Your task to perform on an android device: Open calendar and show me the fourth week of next month Image 0: 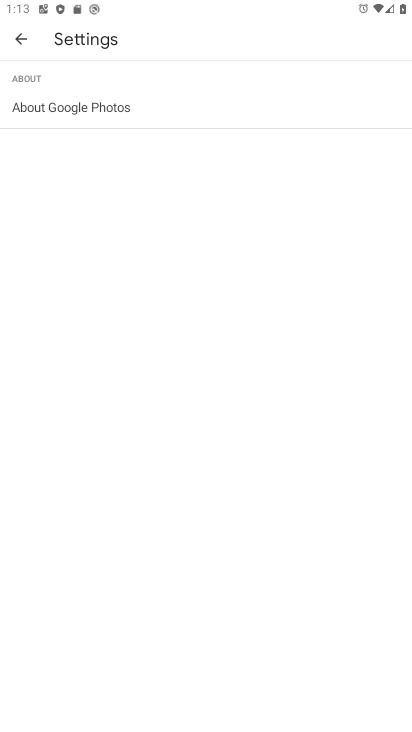
Step 0: drag from (261, 559) to (142, 139)
Your task to perform on an android device: Open calendar and show me the fourth week of next month Image 1: 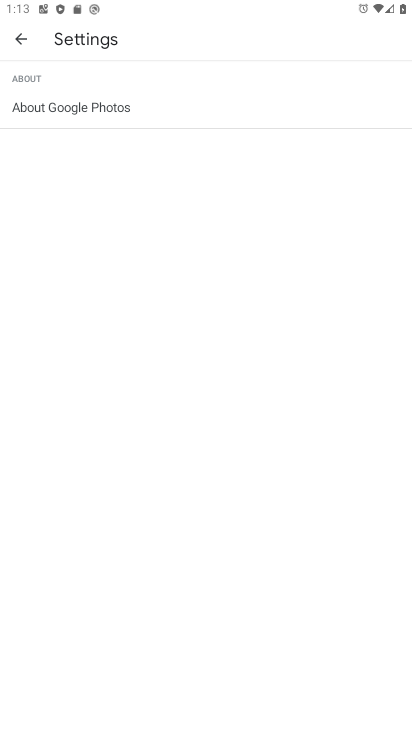
Step 1: click (23, 37)
Your task to perform on an android device: Open calendar and show me the fourth week of next month Image 2: 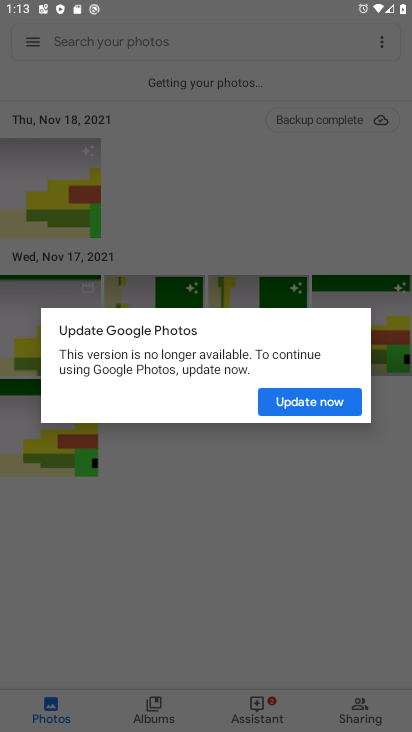
Step 2: click (301, 403)
Your task to perform on an android device: Open calendar and show me the fourth week of next month Image 3: 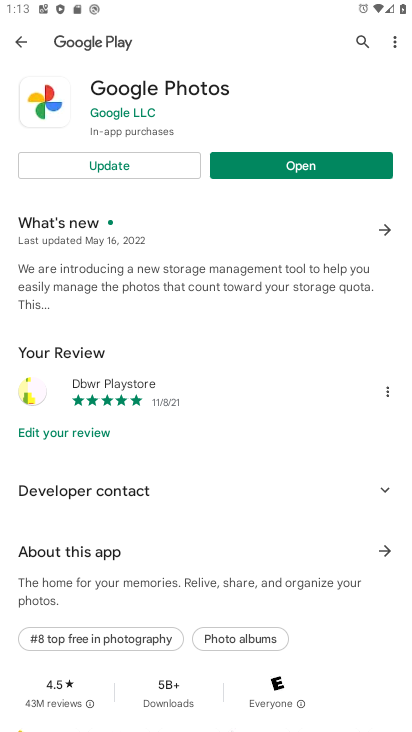
Step 3: press back button
Your task to perform on an android device: Open calendar and show me the fourth week of next month Image 4: 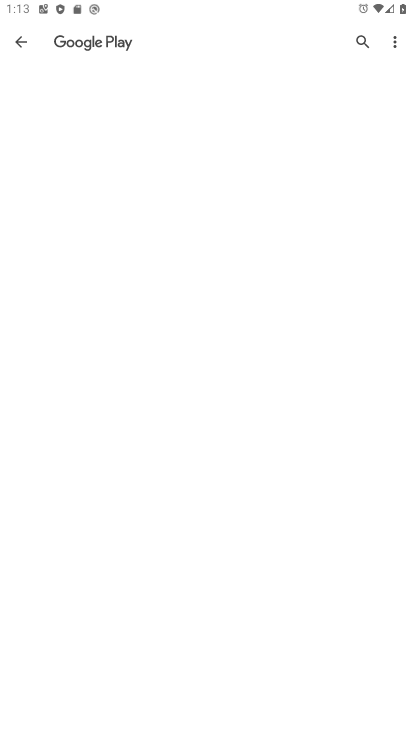
Step 4: press back button
Your task to perform on an android device: Open calendar and show me the fourth week of next month Image 5: 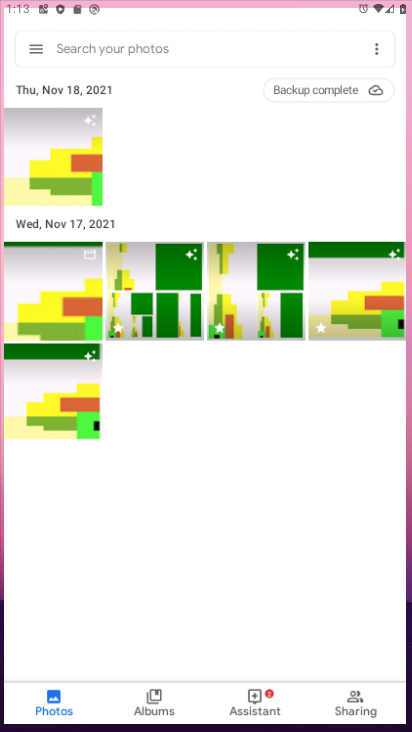
Step 5: press back button
Your task to perform on an android device: Open calendar and show me the fourth week of next month Image 6: 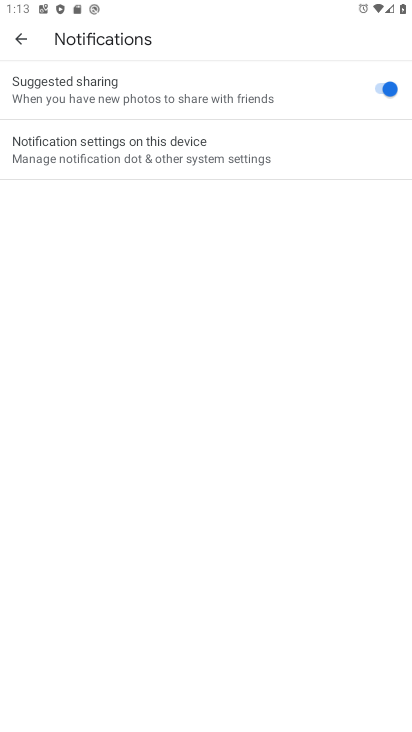
Step 6: click (23, 37)
Your task to perform on an android device: Open calendar and show me the fourth week of next month Image 7: 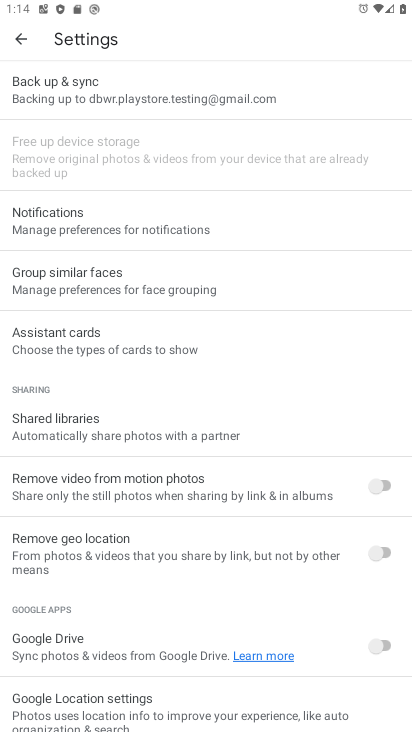
Step 7: press home button
Your task to perform on an android device: Open calendar and show me the fourth week of next month Image 8: 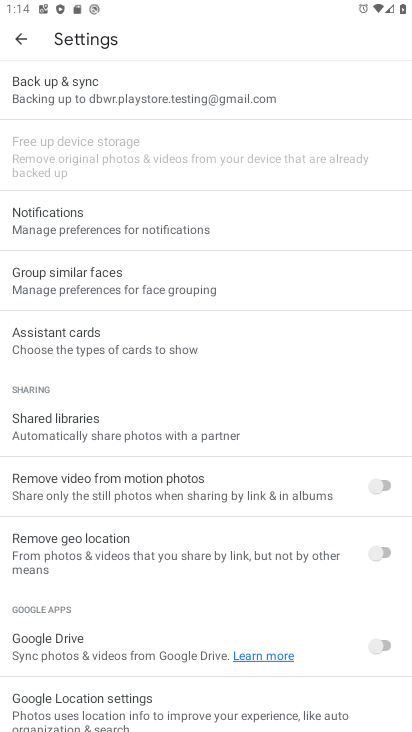
Step 8: press home button
Your task to perform on an android device: Open calendar and show me the fourth week of next month Image 9: 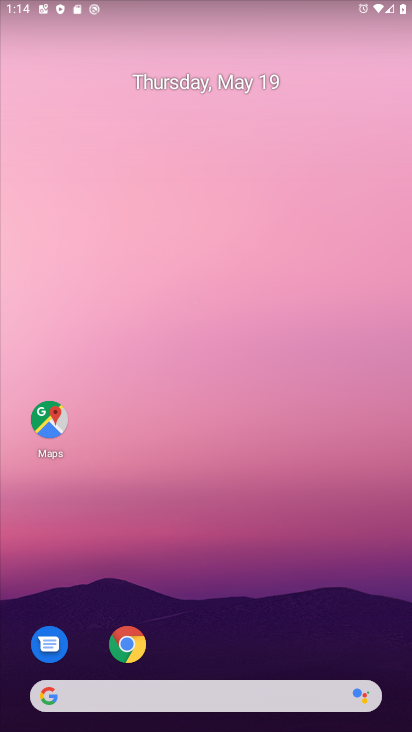
Step 9: drag from (314, 621) to (166, 134)
Your task to perform on an android device: Open calendar and show me the fourth week of next month Image 10: 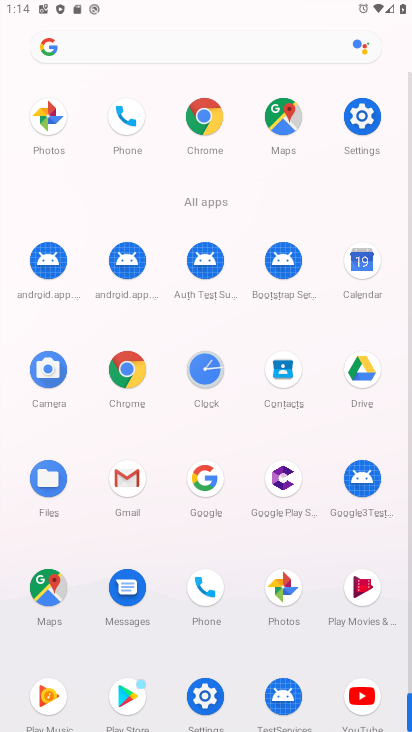
Step 10: click (354, 261)
Your task to perform on an android device: Open calendar and show me the fourth week of next month Image 11: 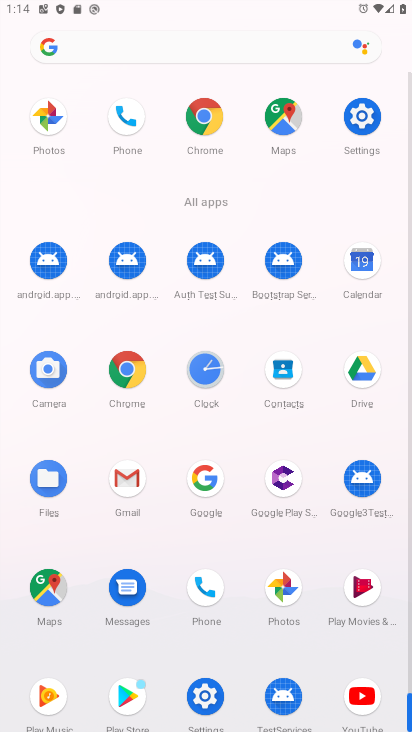
Step 11: click (356, 262)
Your task to perform on an android device: Open calendar and show me the fourth week of next month Image 12: 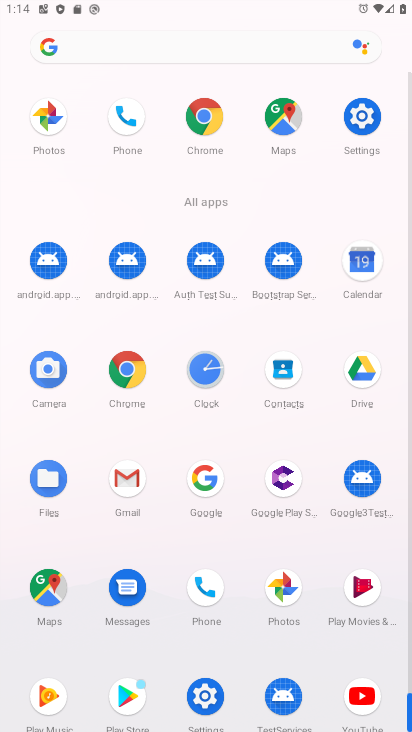
Step 12: click (354, 265)
Your task to perform on an android device: Open calendar and show me the fourth week of next month Image 13: 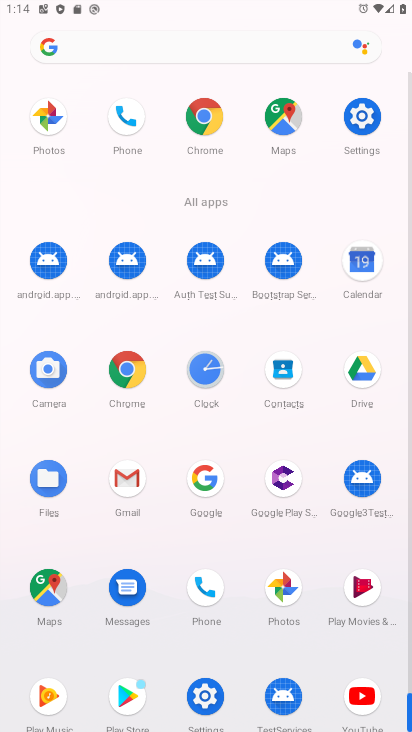
Step 13: click (353, 266)
Your task to perform on an android device: Open calendar and show me the fourth week of next month Image 14: 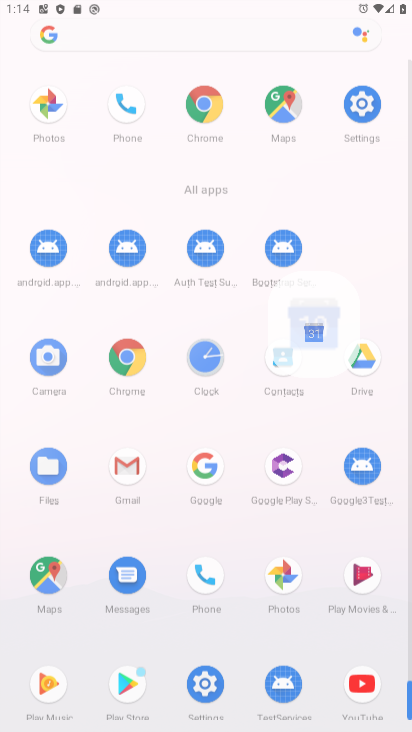
Step 14: click (347, 261)
Your task to perform on an android device: Open calendar and show me the fourth week of next month Image 15: 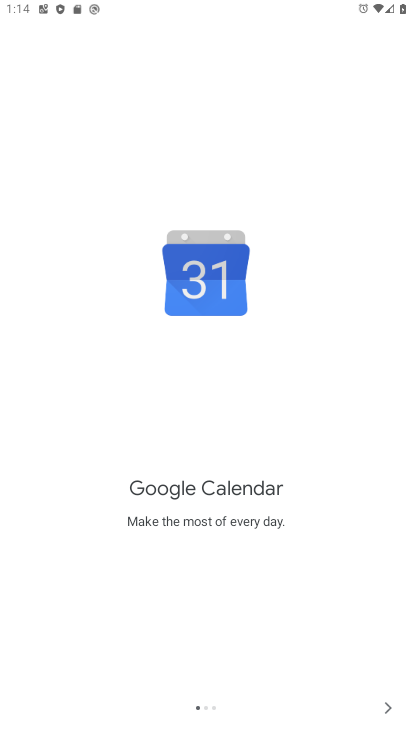
Step 15: click (390, 713)
Your task to perform on an android device: Open calendar and show me the fourth week of next month Image 16: 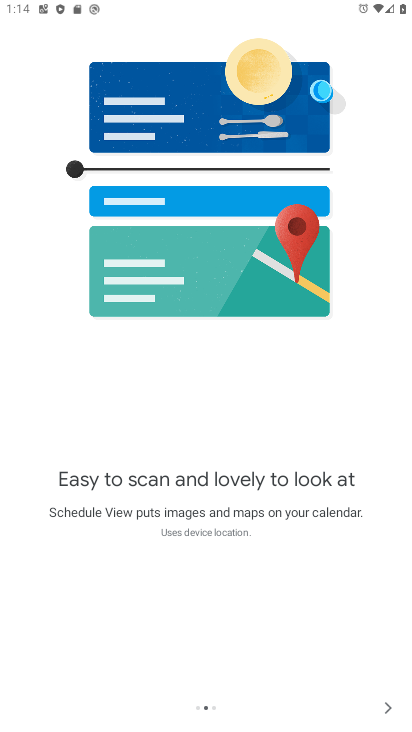
Step 16: click (389, 713)
Your task to perform on an android device: Open calendar and show me the fourth week of next month Image 17: 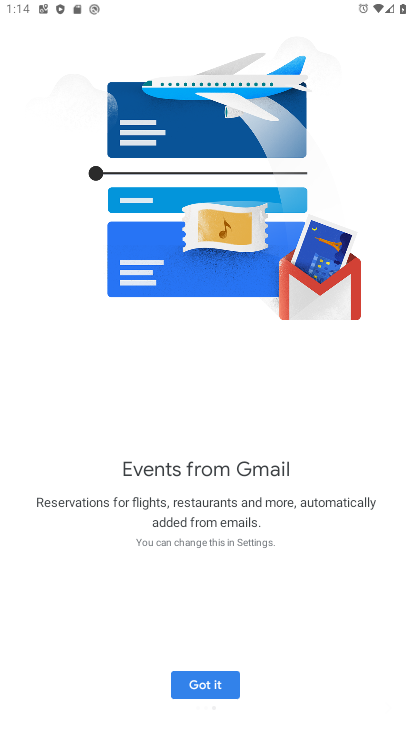
Step 17: click (388, 714)
Your task to perform on an android device: Open calendar and show me the fourth week of next month Image 18: 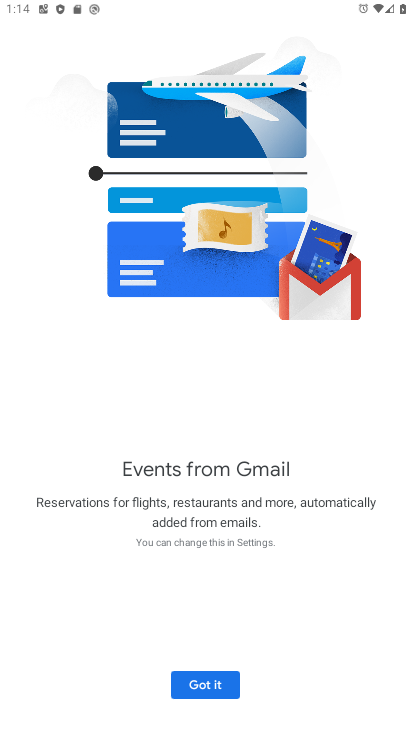
Step 18: click (389, 711)
Your task to perform on an android device: Open calendar and show me the fourth week of next month Image 19: 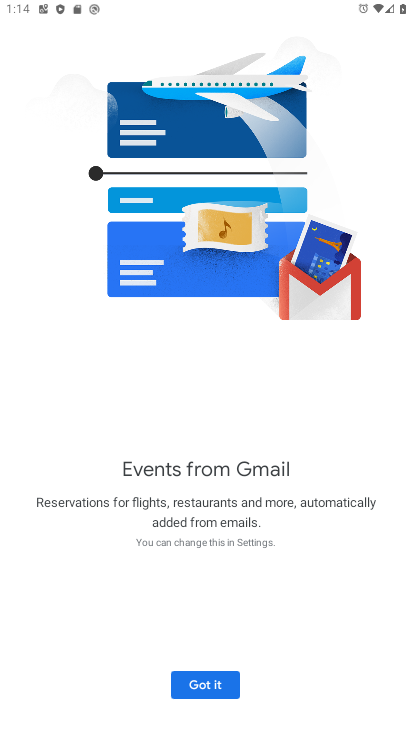
Step 19: click (199, 683)
Your task to perform on an android device: Open calendar and show me the fourth week of next month Image 20: 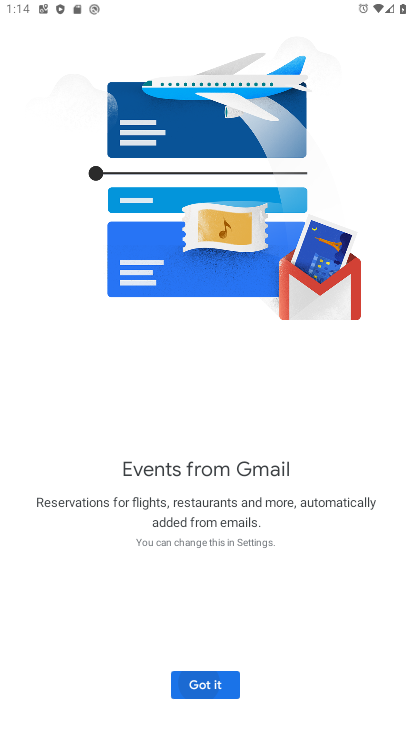
Step 20: click (201, 685)
Your task to perform on an android device: Open calendar and show me the fourth week of next month Image 21: 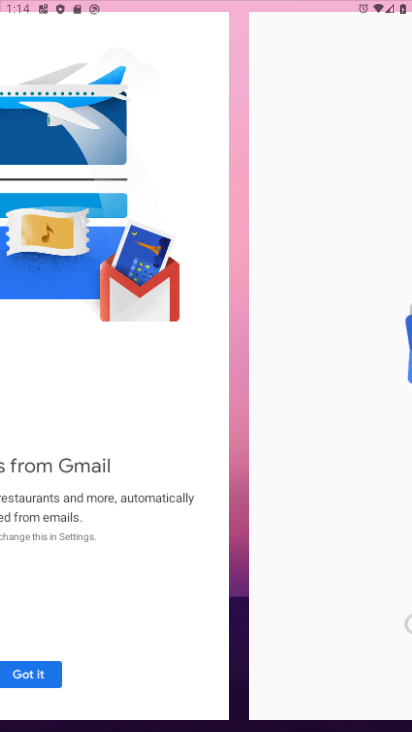
Step 21: click (233, 706)
Your task to perform on an android device: Open calendar and show me the fourth week of next month Image 22: 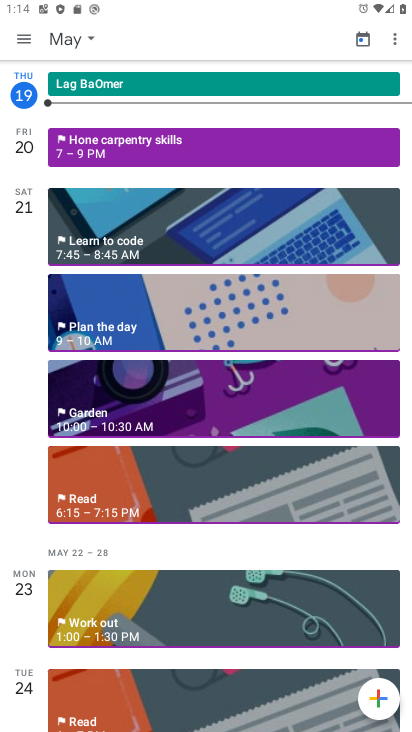
Step 22: drag from (100, 228) to (198, 607)
Your task to perform on an android device: Open calendar and show me the fourth week of next month Image 23: 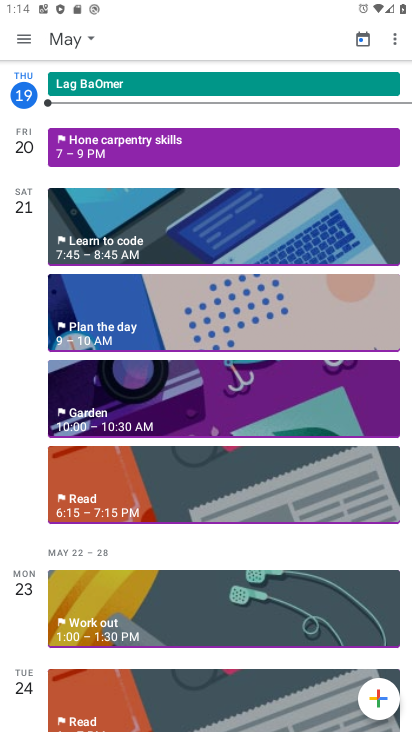
Step 23: drag from (164, 197) to (198, 585)
Your task to perform on an android device: Open calendar and show me the fourth week of next month Image 24: 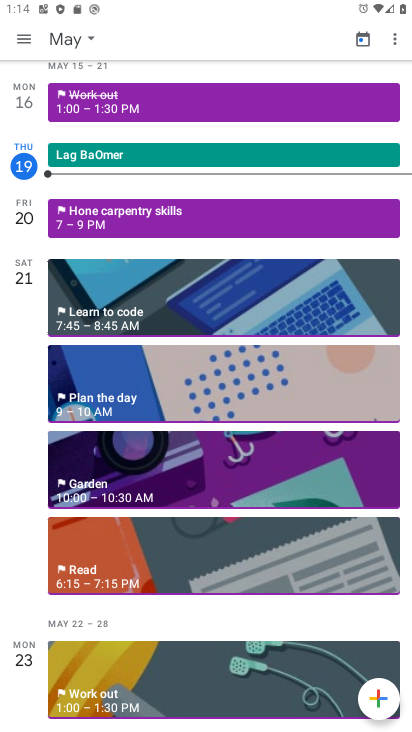
Step 24: drag from (145, 228) to (167, 552)
Your task to perform on an android device: Open calendar and show me the fourth week of next month Image 25: 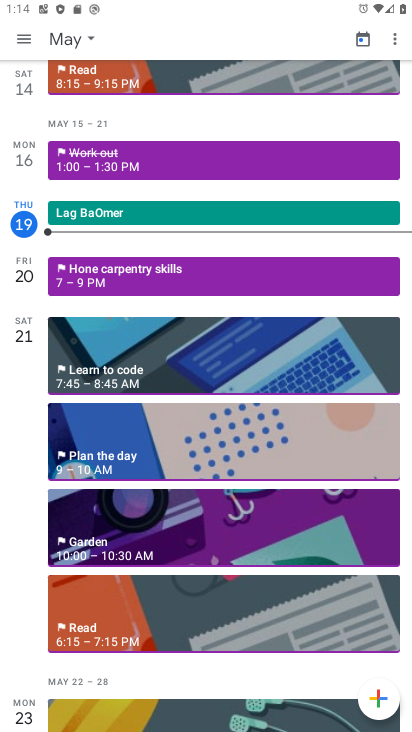
Step 25: drag from (78, 368) to (215, 725)
Your task to perform on an android device: Open calendar and show me the fourth week of next month Image 26: 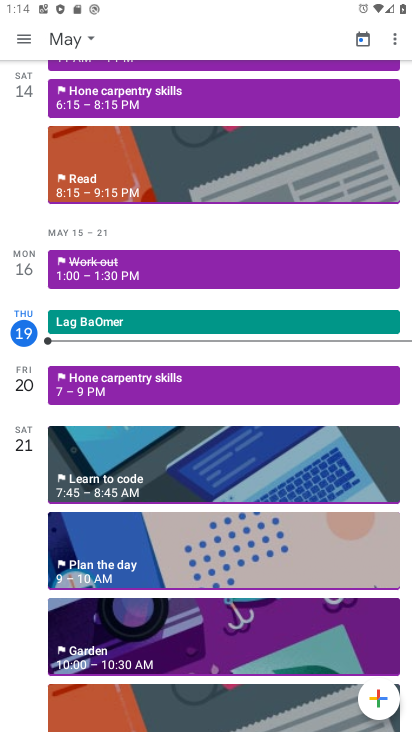
Step 26: drag from (193, 548) to (132, 639)
Your task to perform on an android device: Open calendar and show me the fourth week of next month Image 27: 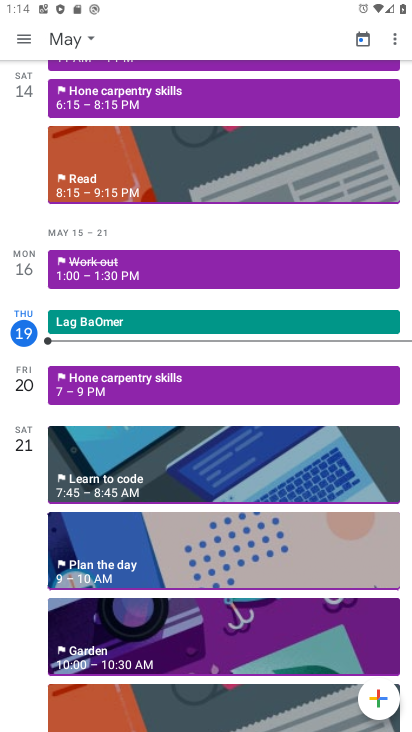
Step 27: drag from (54, 245) to (148, 488)
Your task to perform on an android device: Open calendar and show me the fourth week of next month Image 28: 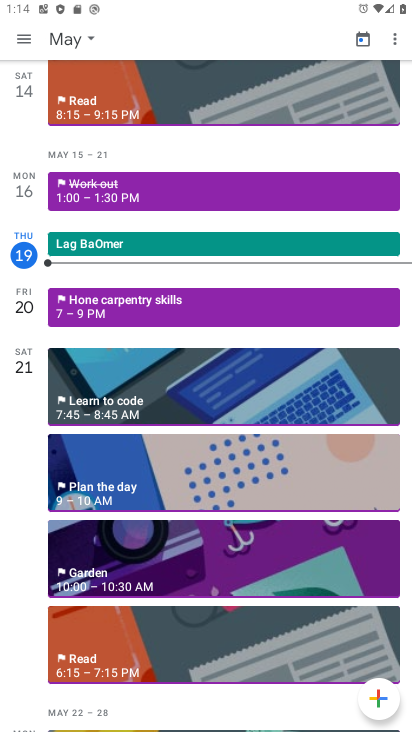
Step 28: drag from (85, 229) to (190, 637)
Your task to perform on an android device: Open calendar and show me the fourth week of next month Image 29: 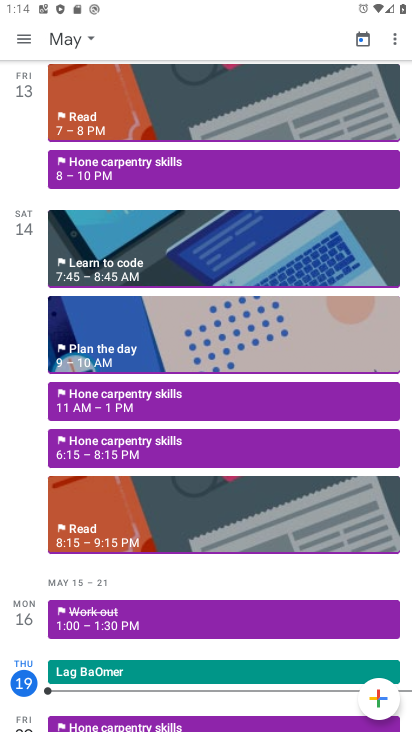
Step 29: drag from (124, 339) to (215, 647)
Your task to perform on an android device: Open calendar and show me the fourth week of next month Image 30: 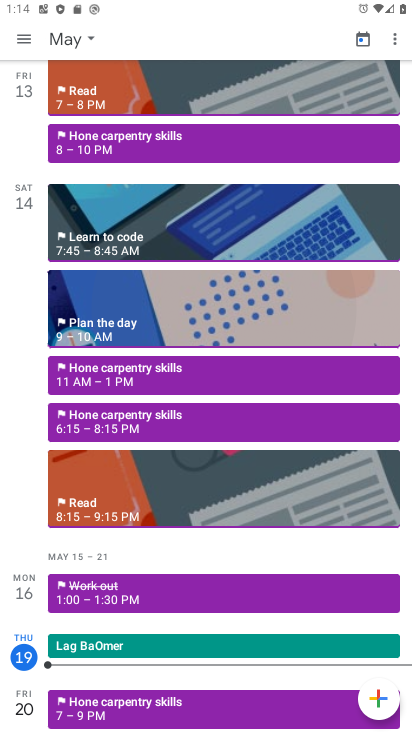
Step 30: drag from (134, 336) to (219, 626)
Your task to perform on an android device: Open calendar and show me the fourth week of next month Image 31: 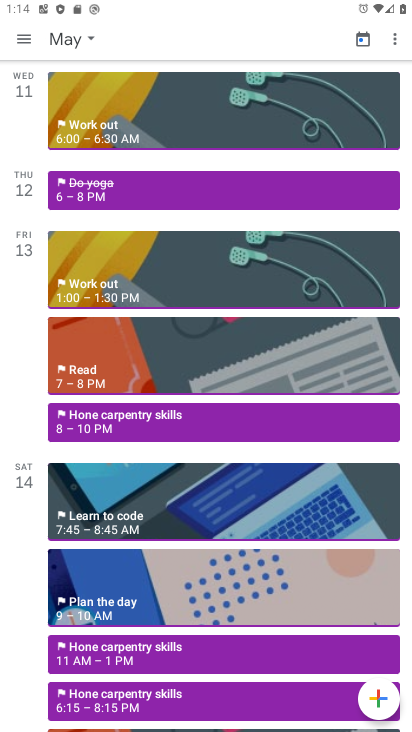
Step 31: drag from (105, 261) to (255, 620)
Your task to perform on an android device: Open calendar and show me the fourth week of next month Image 32: 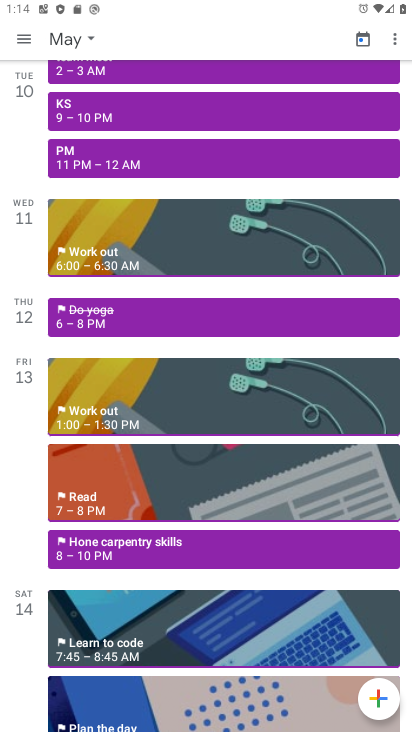
Step 32: drag from (145, 269) to (191, 567)
Your task to perform on an android device: Open calendar and show me the fourth week of next month Image 33: 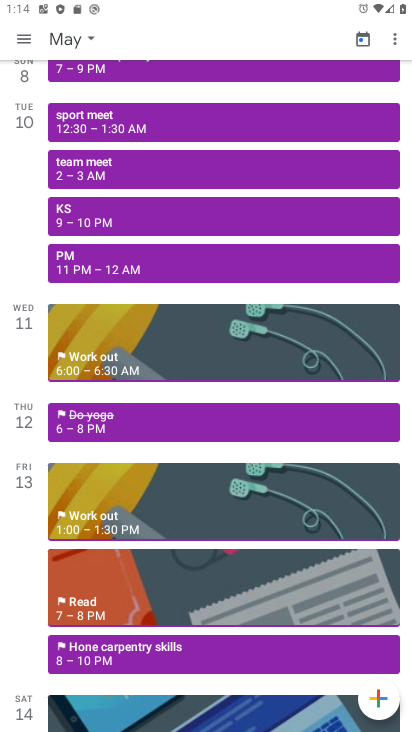
Step 33: drag from (99, 207) to (207, 572)
Your task to perform on an android device: Open calendar and show me the fourth week of next month Image 34: 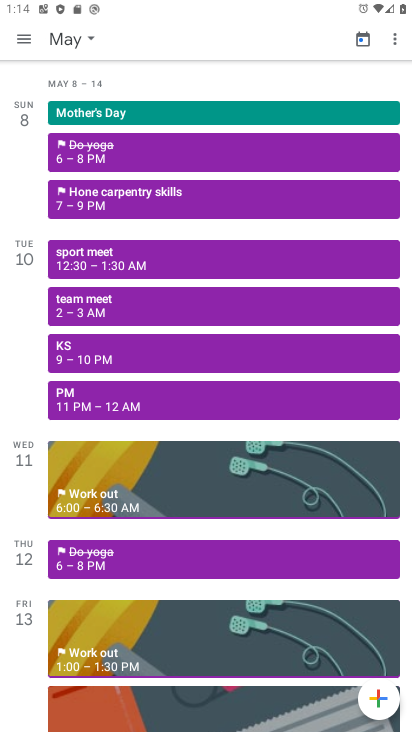
Step 34: drag from (89, 291) to (219, 586)
Your task to perform on an android device: Open calendar and show me the fourth week of next month Image 35: 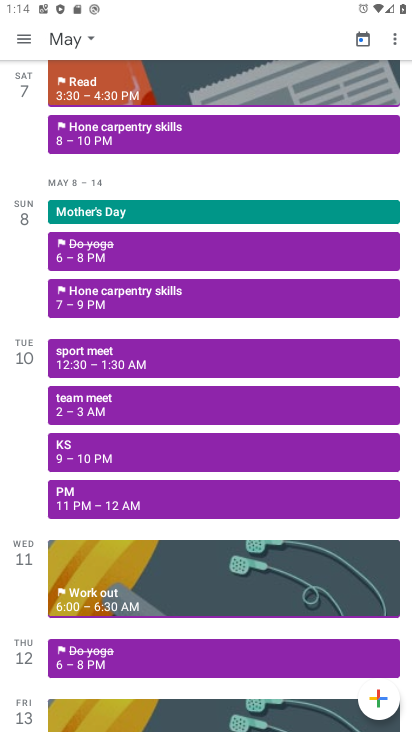
Step 35: drag from (157, 246) to (209, 549)
Your task to perform on an android device: Open calendar and show me the fourth week of next month Image 36: 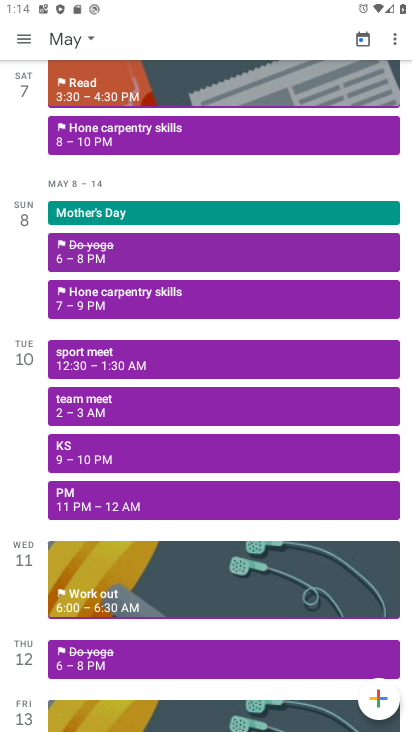
Step 36: drag from (106, 258) to (200, 648)
Your task to perform on an android device: Open calendar and show me the fourth week of next month Image 37: 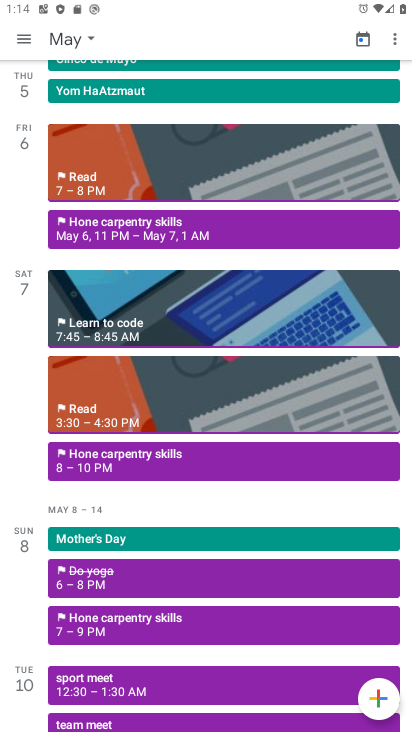
Step 37: drag from (113, 255) to (169, 551)
Your task to perform on an android device: Open calendar and show me the fourth week of next month Image 38: 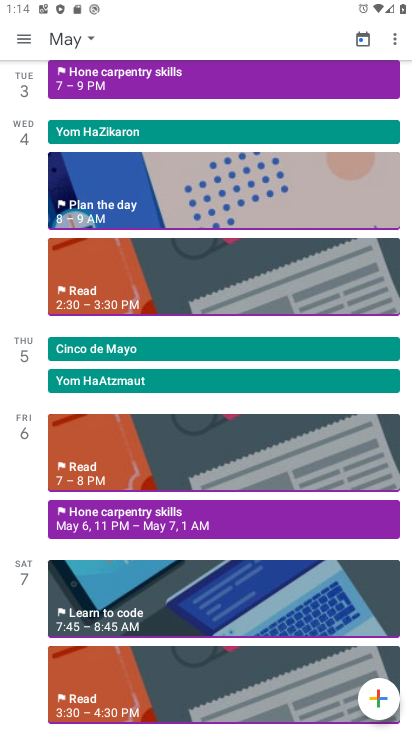
Step 38: drag from (99, 309) to (183, 608)
Your task to perform on an android device: Open calendar and show me the fourth week of next month Image 39: 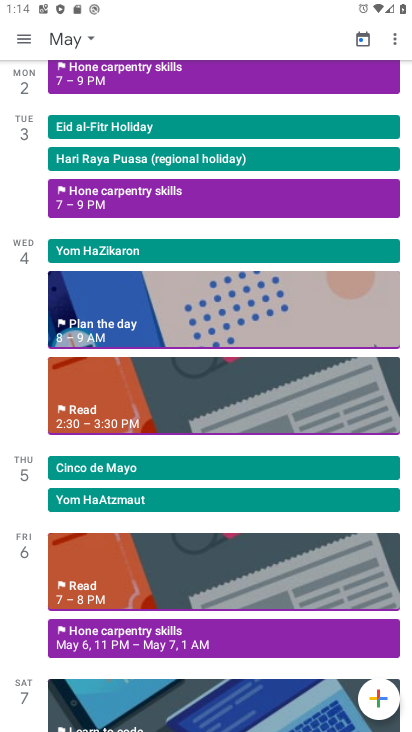
Step 39: drag from (132, 239) to (184, 536)
Your task to perform on an android device: Open calendar and show me the fourth week of next month Image 40: 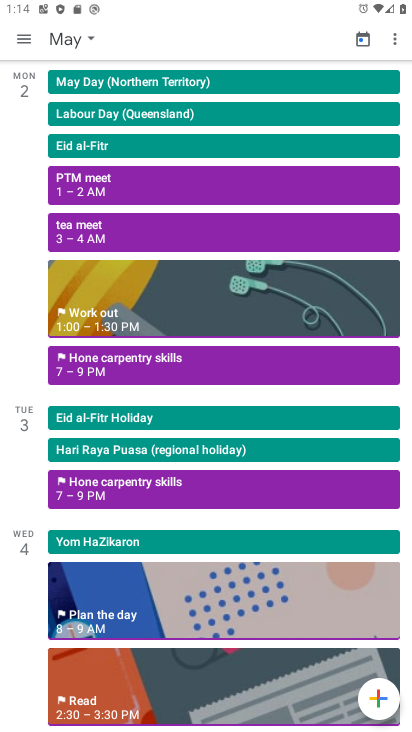
Step 40: drag from (77, 250) to (174, 652)
Your task to perform on an android device: Open calendar and show me the fourth week of next month Image 41: 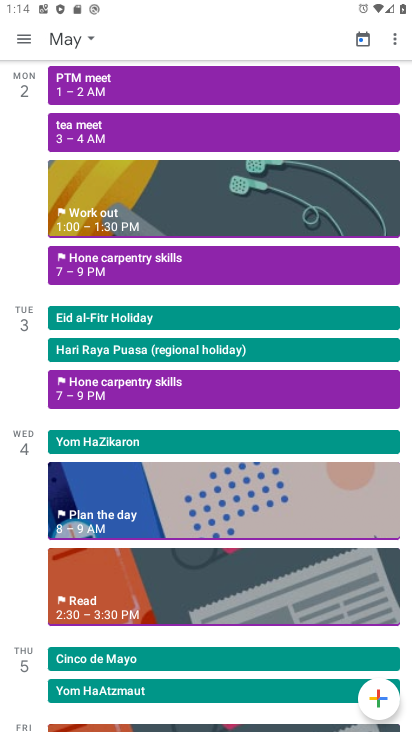
Step 41: drag from (132, 246) to (184, 575)
Your task to perform on an android device: Open calendar and show me the fourth week of next month Image 42: 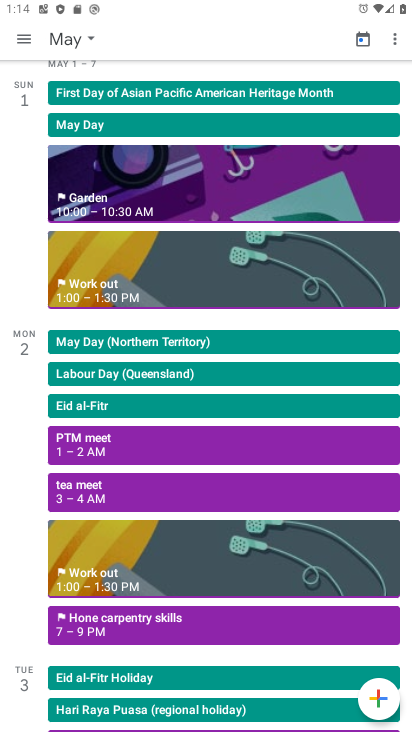
Step 42: drag from (121, 249) to (182, 653)
Your task to perform on an android device: Open calendar and show me the fourth week of next month Image 43: 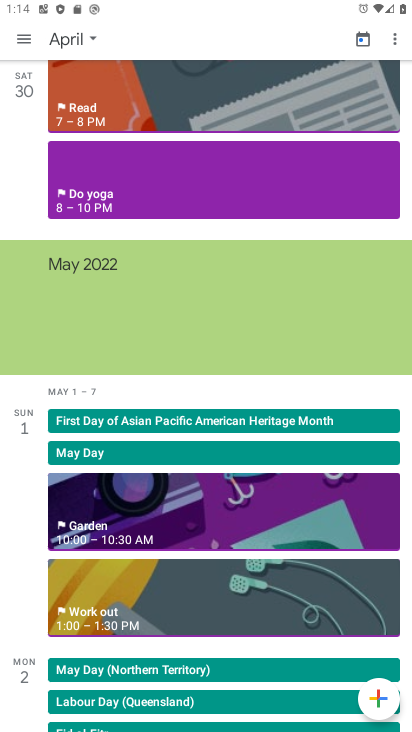
Step 43: drag from (120, 302) to (186, 639)
Your task to perform on an android device: Open calendar and show me the fourth week of next month Image 44: 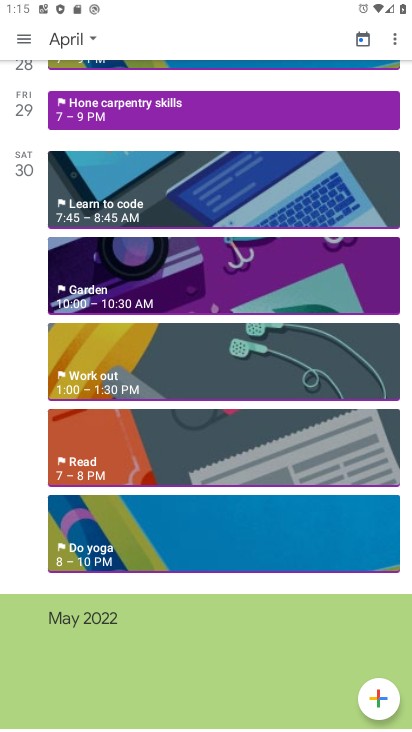
Step 44: click (91, 33)
Your task to perform on an android device: Open calendar and show me the fourth week of next month Image 45: 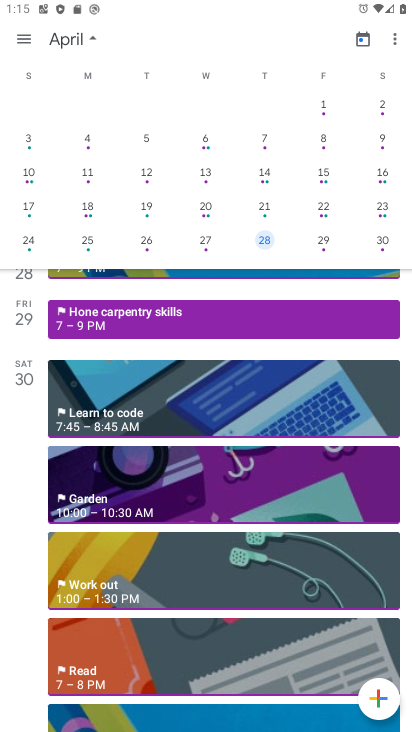
Step 45: drag from (291, 203) to (16, 226)
Your task to perform on an android device: Open calendar and show me the fourth week of next month Image 46: 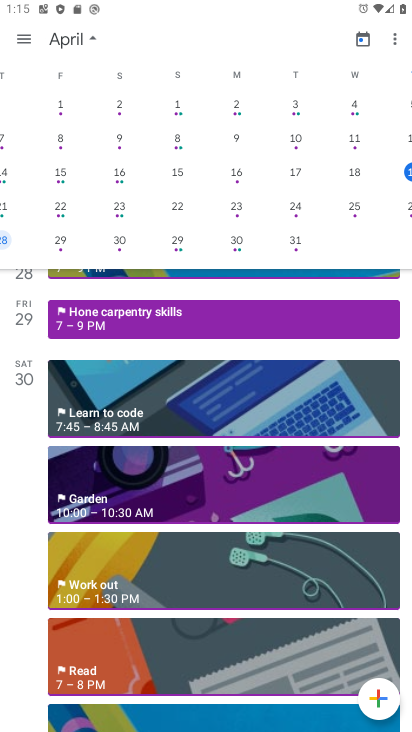
Step 46: drag from (282, 206) to (44, 263)
Your task to perform on an android device: Open calendar and show me the fourth week of next month Image 47: 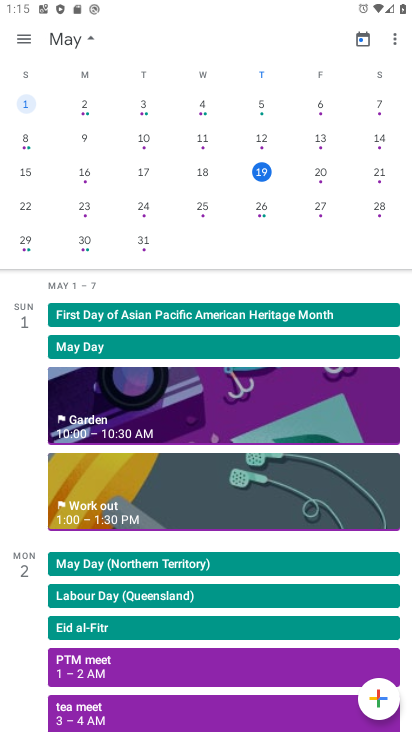
Step 47: drag from (259, 167) to (30, 213)
Your task to perform on an android device: Open calendar and show me the fourth week of next month Image 48: 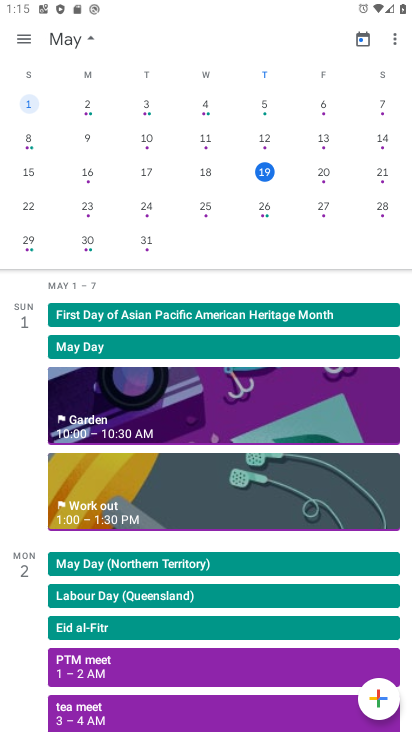
Step 48: drag from (252, 162) to (65, 272)
Your task to perform on an android device: Open calendar and show me the fourth week of next month Image 49: 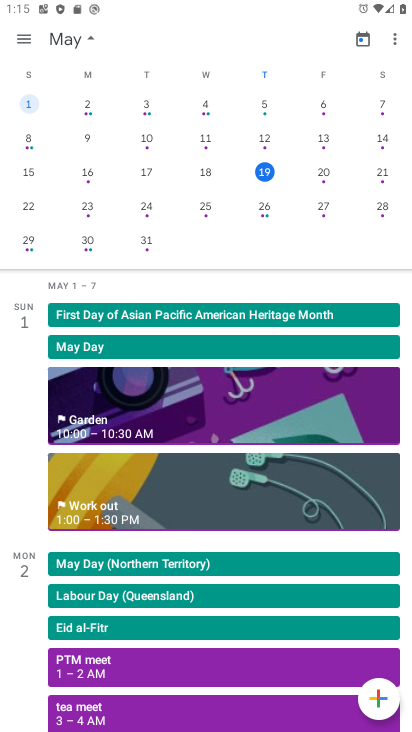
Step 49: click (142, 200)
Your task to perform on an android device: Open calendar and show me the fourth week of next month Image 50: 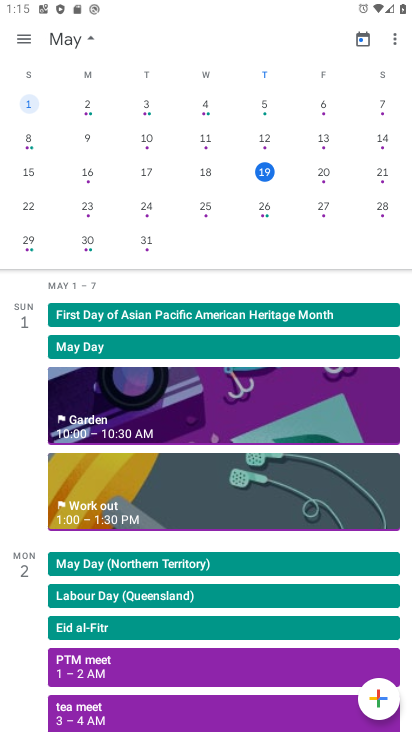
Step 50: click (151, 200)
Your task to perform on an android device: Open calendar and show me the fourth week of next month Image 51: 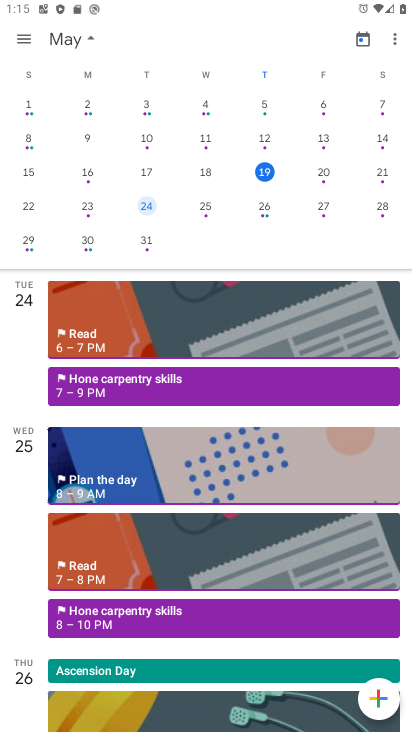
Step 51: click (151, 199)
Your task to perform on an android device: Open calendar and show me the fourth week of next month Image 52: 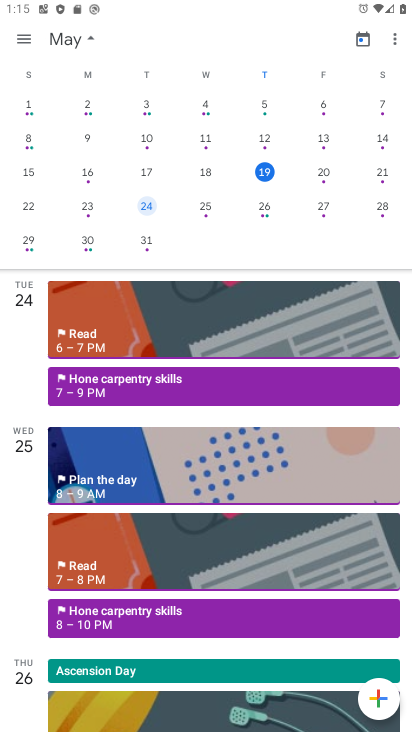
Step 52: click (153, 199)
Your task to perform on an android device: Open calendar and show me the fourth week of next month Image 53: 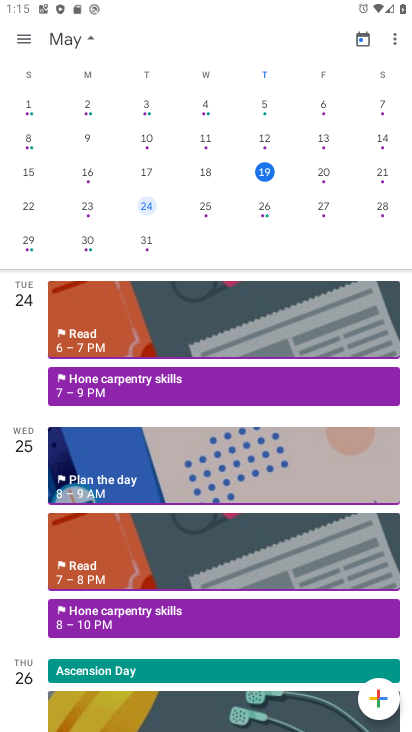
Step 53: task complete